Your task to perform on an android device: turn off data saver in the chrome app Image 0: 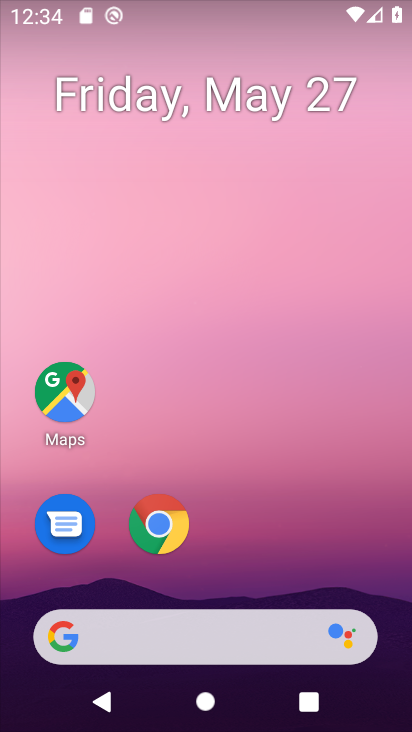
Step 0: click (165, 512)
Your task to perform on an android device: turn off data saver in the chrome app Image 1: 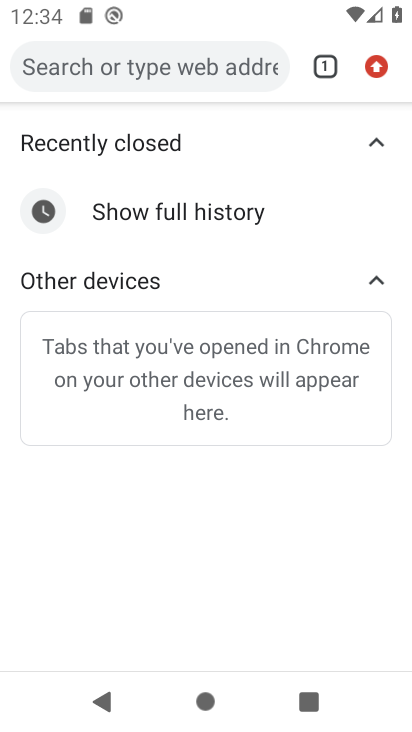
Step 1: click (374, 64)
Your task to perform on an android device: turn off data saver in the chrome app Image 2: 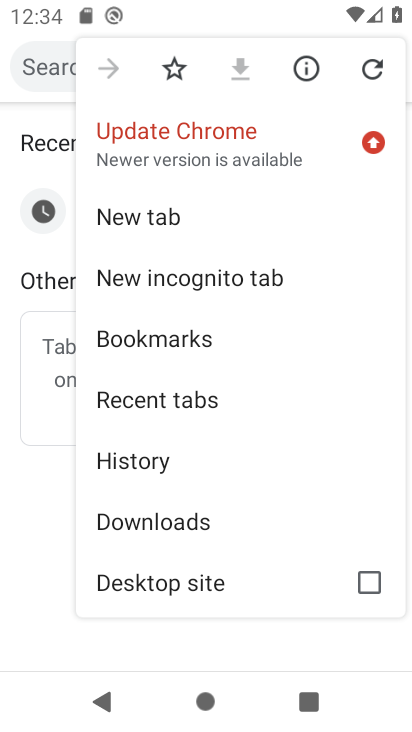
Step 2: drag from (255, 554) to (257, 264)
Your task to perform on an android device: turn off data saver in the chrome app Image 3: 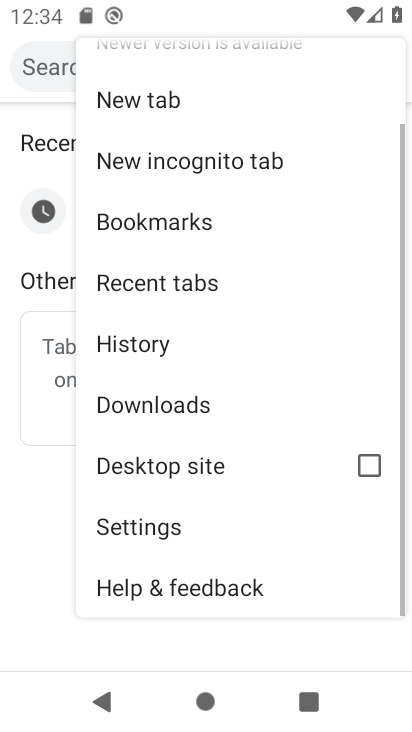
Step 3: click (179, 519)
Your task to perform on an android device: turn off data saver in the chrome app Image 4: 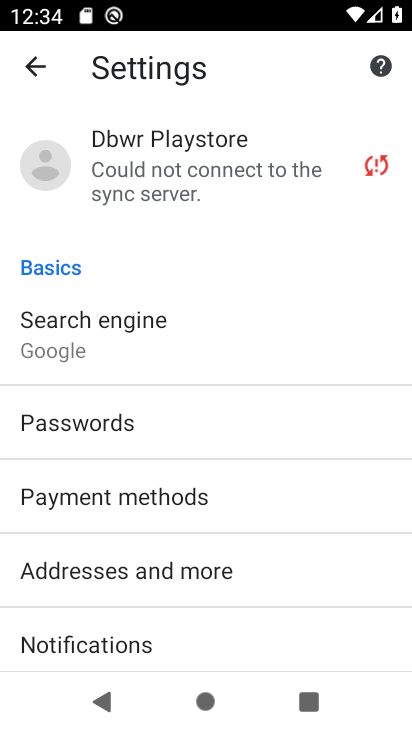
Step 4: drag from (243, 570) to (299, 107)
Your task to perform on an android device: turn off data saver in the chrome app Image 5: 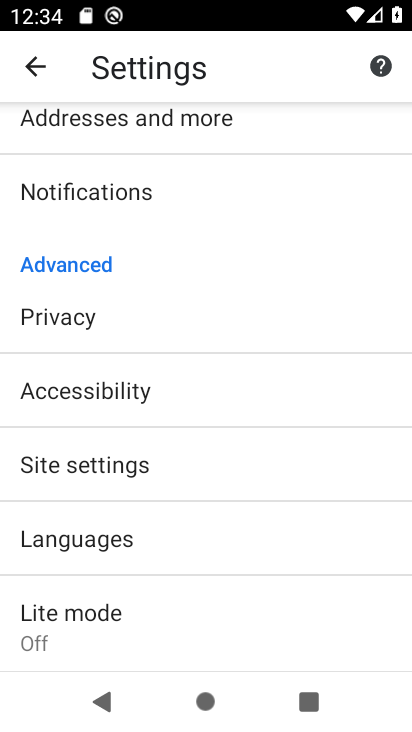
Step 5: click (144, 625)
Your task to perform on an android device: turn off data saver in the chrome app Image 6: 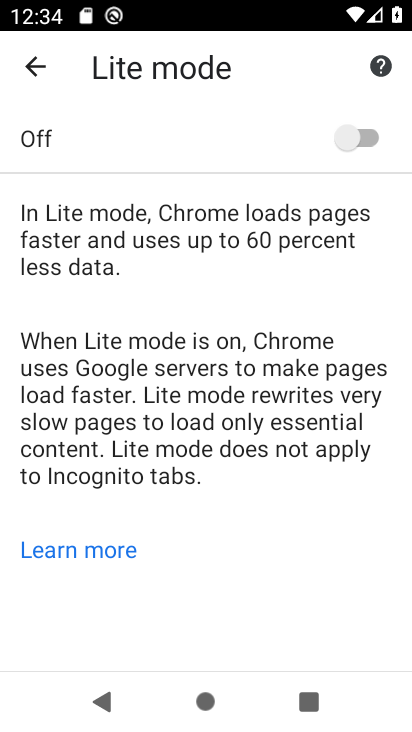
Step 6: task complete